Your task to perform on an android device: Open Wikipedia Image 0: 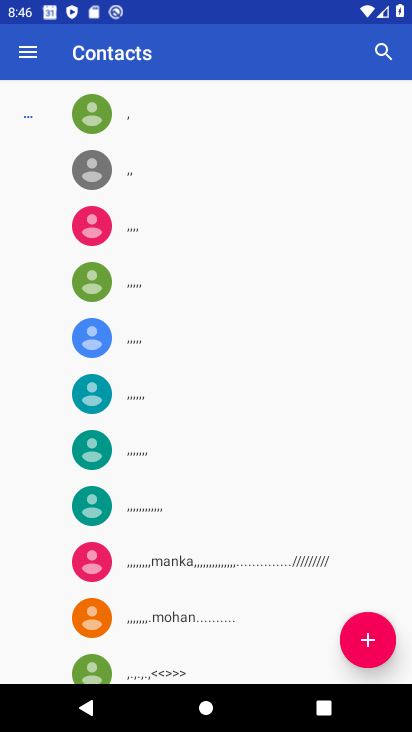
Step 0: press home button
Your task to perform on an android device: Open Wikipedia Image 1: 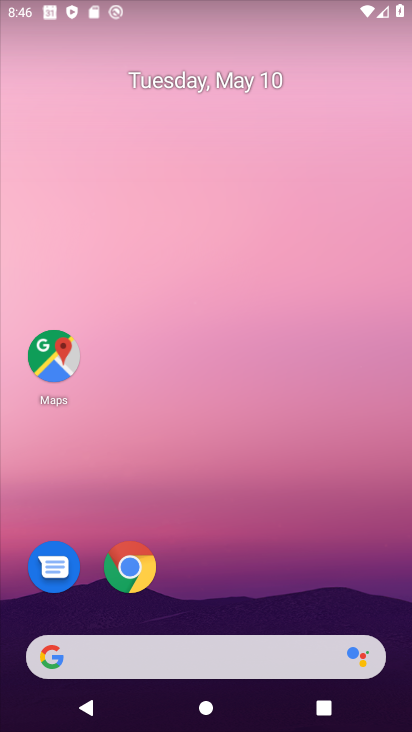
Step 1: drag from (310, 504) to (324, 0)
Your task to perform on an android device: Open Wikipedia Image 2: 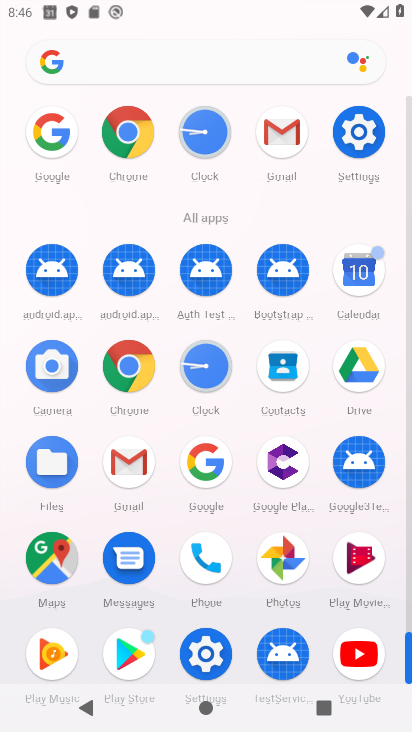
Step 2: click (116, 122)
Your task to perform on an android device: Open Wikipedia Image 3: 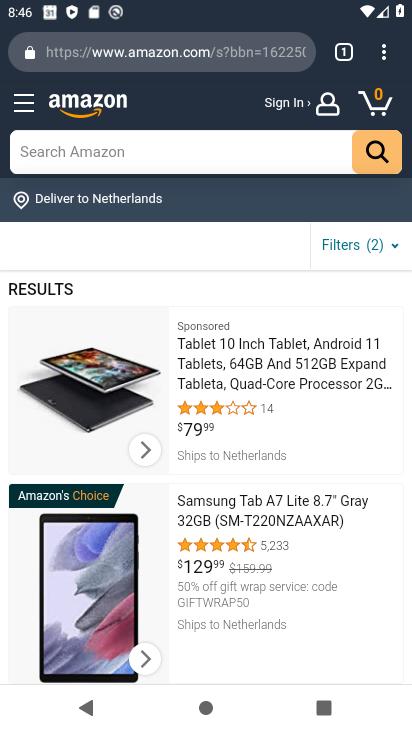
Step 3: click (152, 55)
Your task to perform on an android device: Open Wikipedia Image 4: 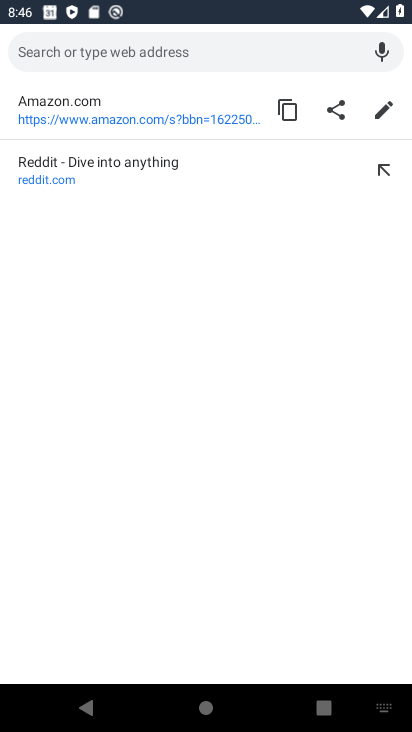
Step 4: type "wikipedia"
Your task to perform on an android device: Open Wikipedia Image 5: 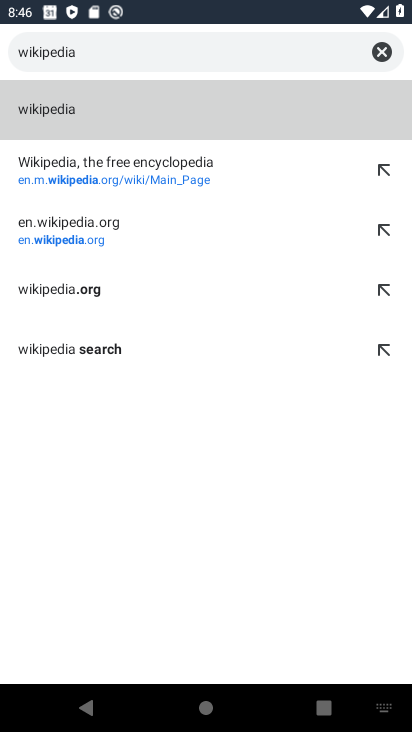
Step 5: click (40, 164)
Your task to perform on an android device: Open Wikipedia Image 6: 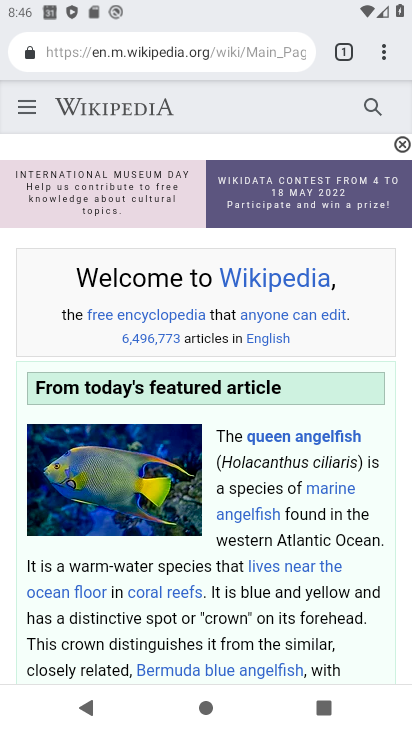
Step 6: task complete